Your task to perform on an android device: Open wifi settings Image 0: 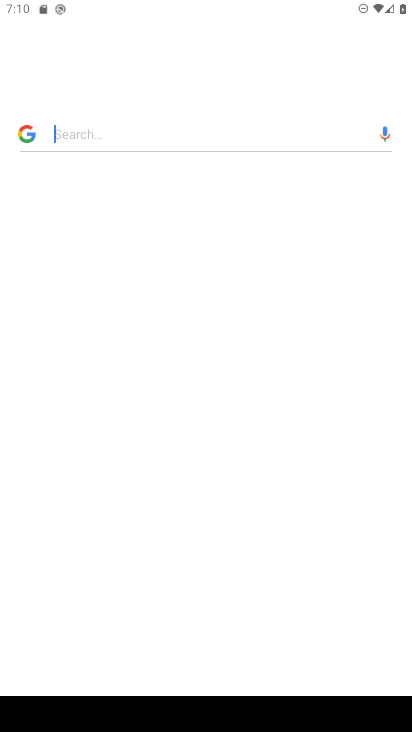
Step 0: drag from (261, 528) to (261, 394)
Your task to perform on an android device: Open wifi settings Image 1: 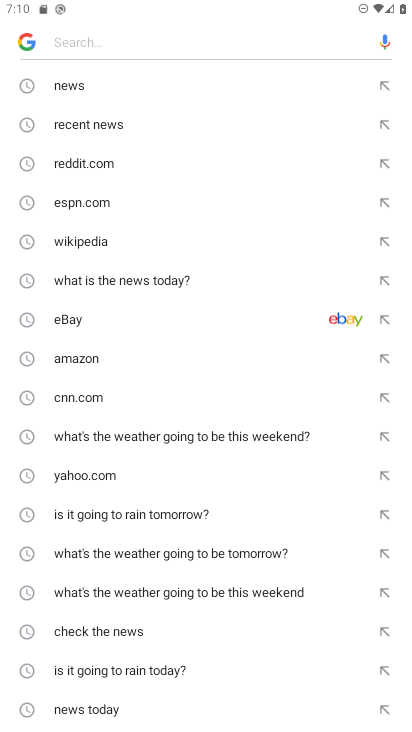
Step 1: press home button
Your task to perform on an android device: Open wifi settings Image 2: 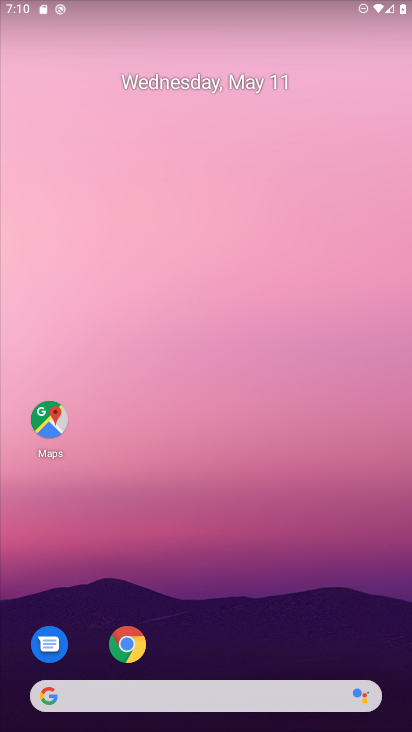
Step 2: drag from (194, 615) to (27, 39)
Your task to perform on an android device: Open wifi settings Image 3: 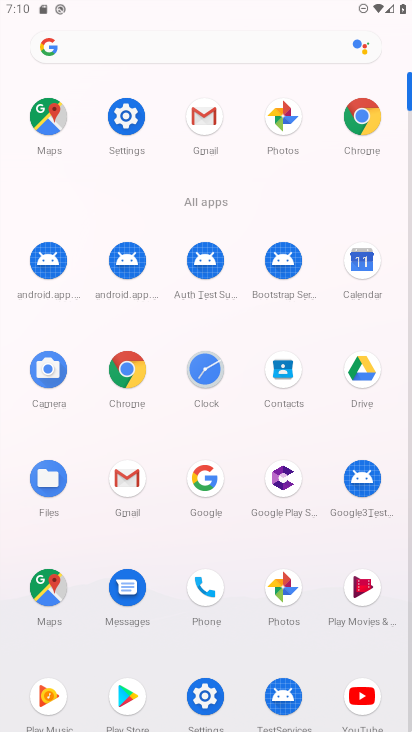
Step 3: click (126, 113)
Your task to perform on an android device: Open wifi settings Image 4: 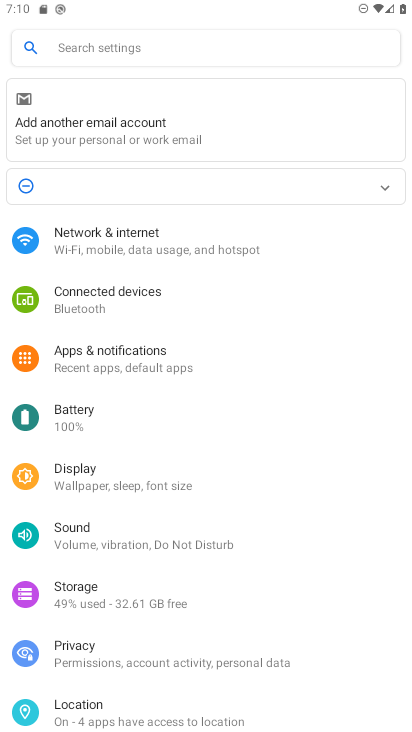
Step 4: click (115, 233)
Your task to perform on an android device: Open wifi settings Image 5: 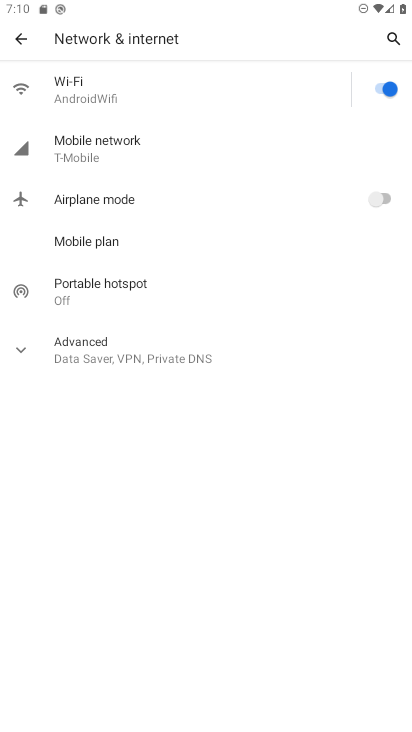
Step 5: click (78, 74)
Your task to perform on an android device: Open wifi settings Image 6: 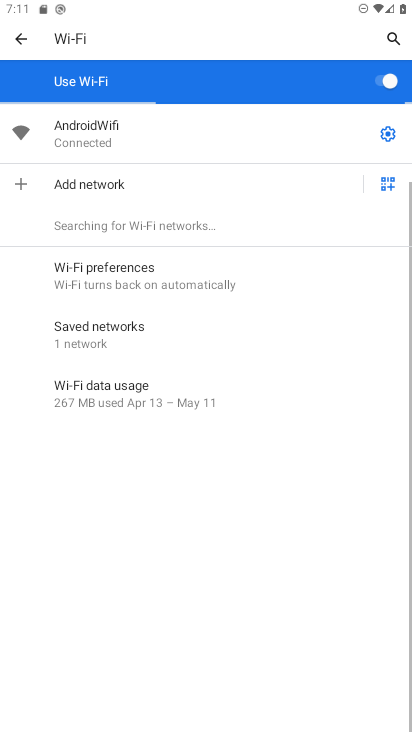
Step 6: task complete